Your task to perform on an android device: change the clock style Image 0: 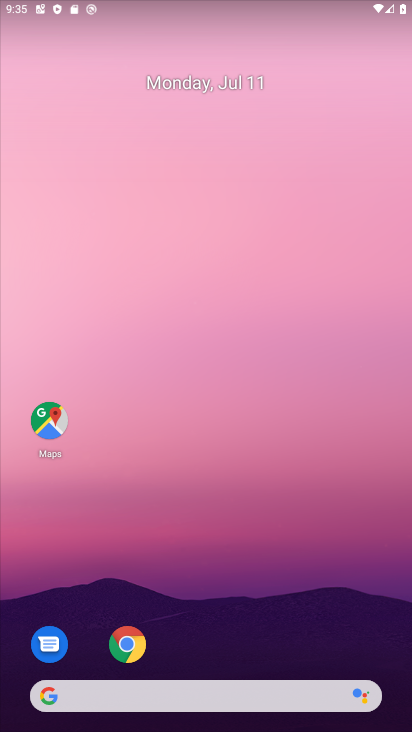
Step 0: drag from (191, 653) to (197, 78)
Your task to perform on an android device: change the clock style Image 1: 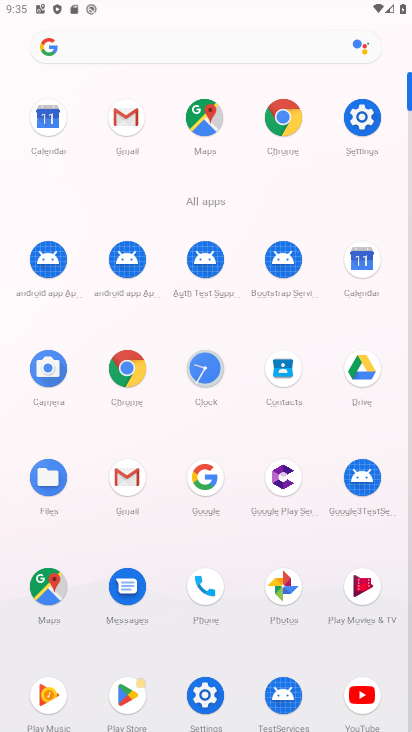
Step 1: click (208, 365)
Your task to perform on an android device: change the clock style Image 2: 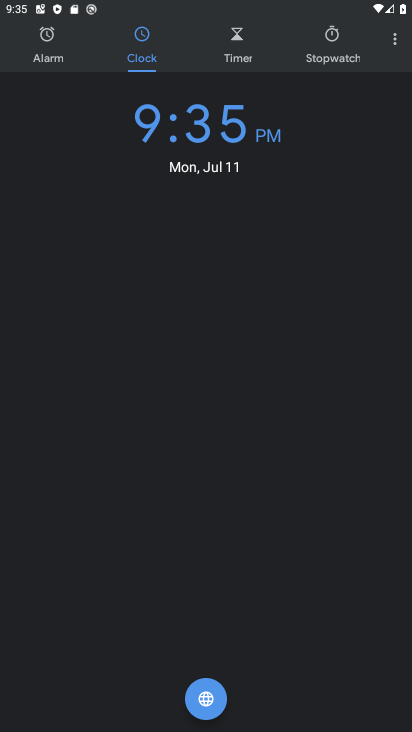
Step 2: click (390, 37)
Your task to perform on an android device: change the clock style Image 3: 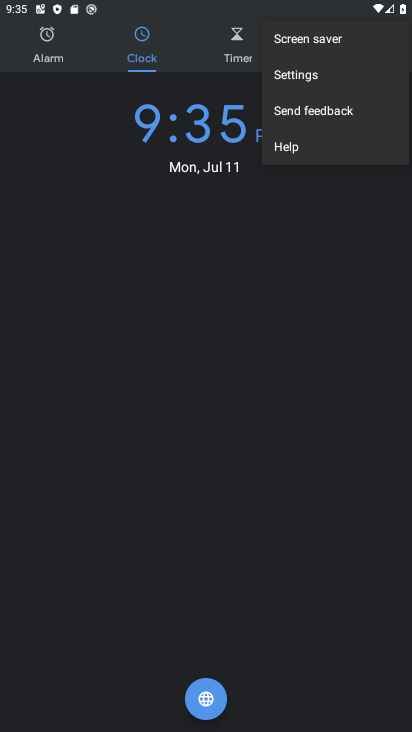
Step 3: click (312, 71)
Your task to perform on an android device: change the clock style Image 4: 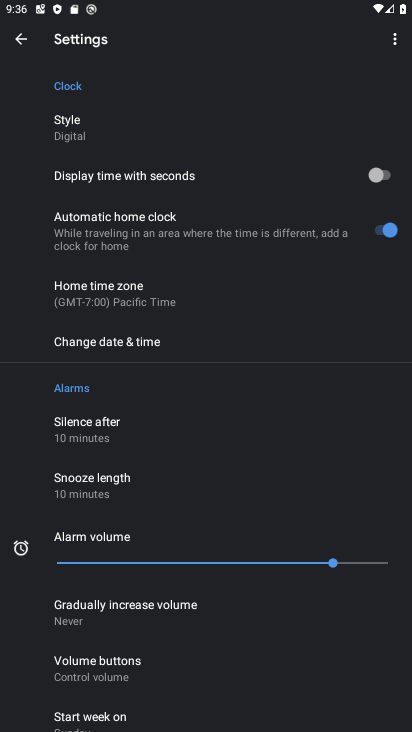
Step 4: click (110, 134)
Your task to perform on an android device: change the clock style Image 5: 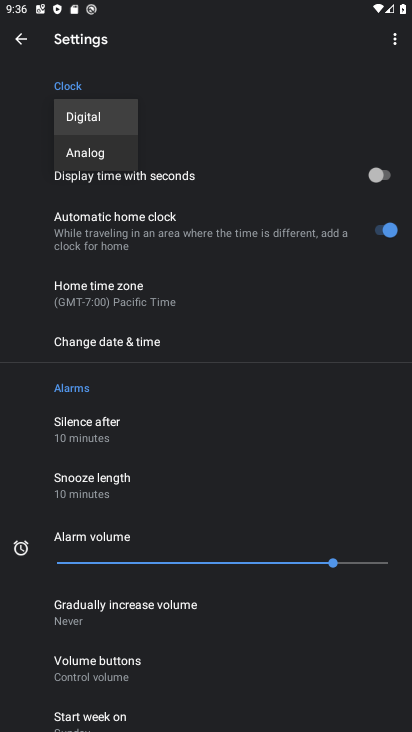
Step 5: click (118, 155)
Your task to perform on an android device: change the clock style Image 6: 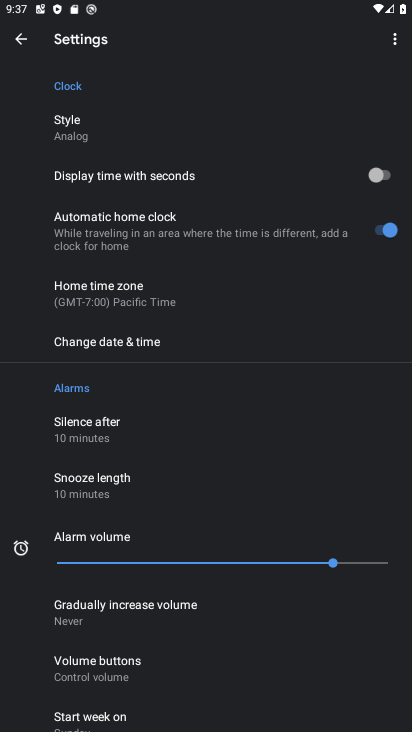
Step 6: task complete